Your task to perform on an android device: check android version Image 0: 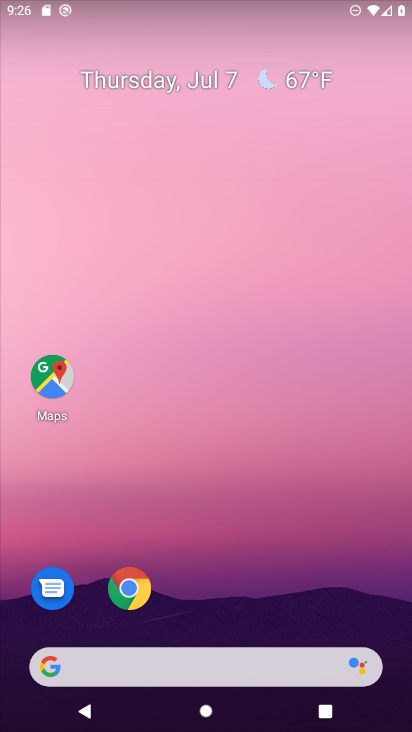
Step 0: drag from (224, 617) to (212, 87)
Your task to perform on an android device: check android version Image 1: 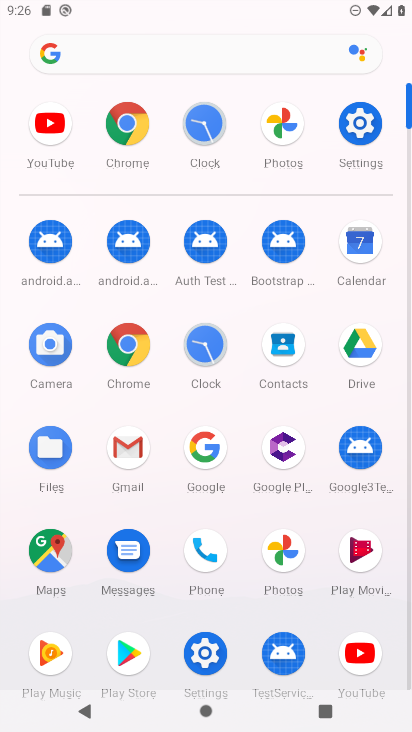
Step 1: click (360, 124)
Your task to perform on an android device: check android version Image 2: 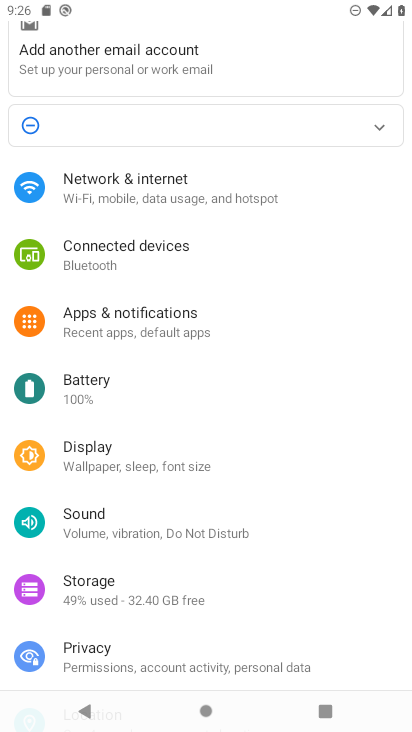
Step 2: drag from (146, 395) to (170, 308)
Your task to perform on an android device: check android version Image 3: 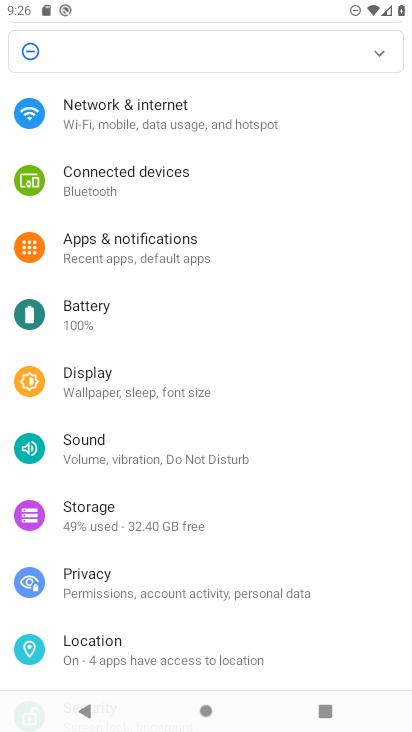
Step 3: drag from (133, 411) to (154, 310)
Your task to perform on an android device: check android version Image 4: 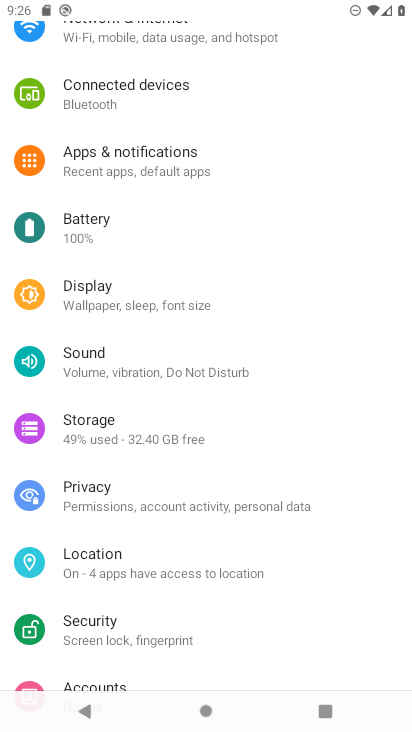
Step 4: drag from (129, 385) to (151, 310)
Your task to perform on an android device: check android version Image 5: 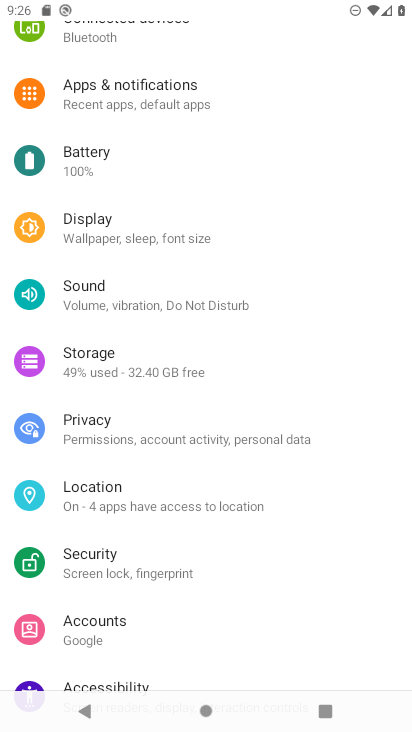
Step 5: drag from (127, 402) to (141, 325)
Your task to perform on an android device: check android version Image 6: 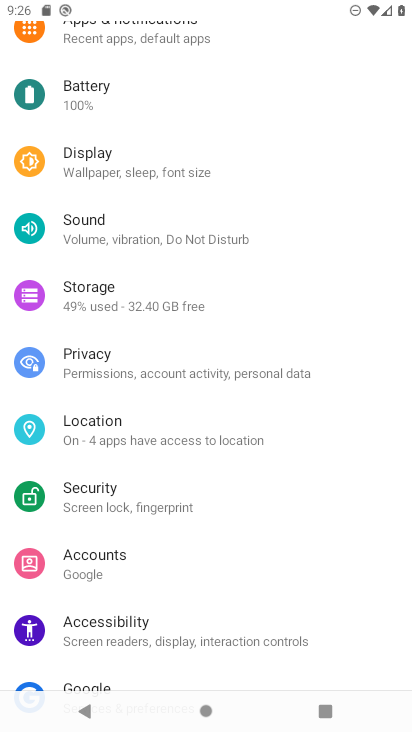
Step 6: drag from (118, 395) to (143, 328)
Your task to perform on an android device: check android version Image 7: 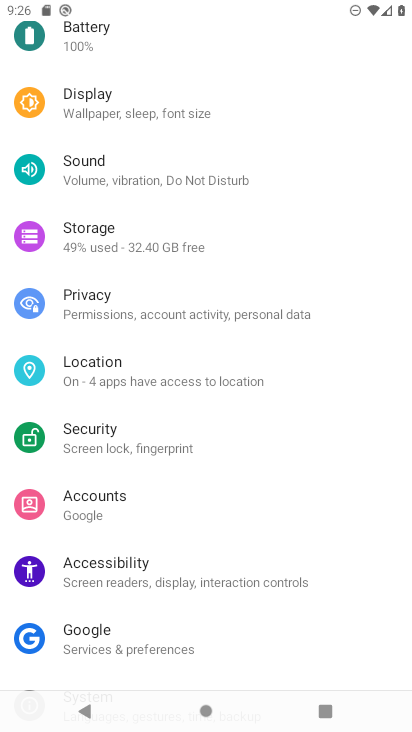
Step 7: drag from (98, 397) to (165, 313)
Your task to perform on an android device: check android version Image 8: 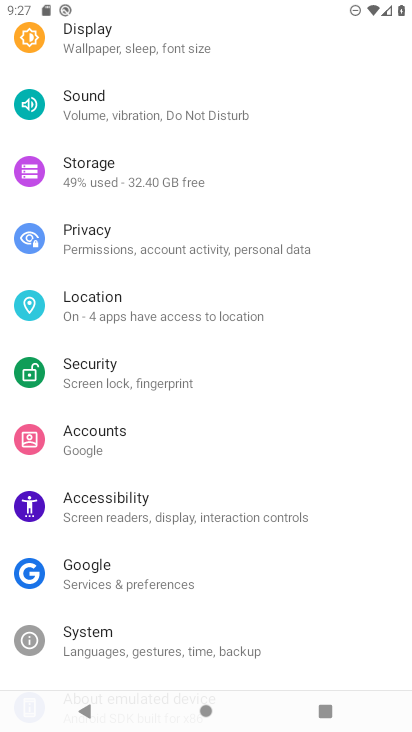
Step 8: drag from (134, 535) to (181, 456)
Your task to perform on an android device: check android version Image 9: 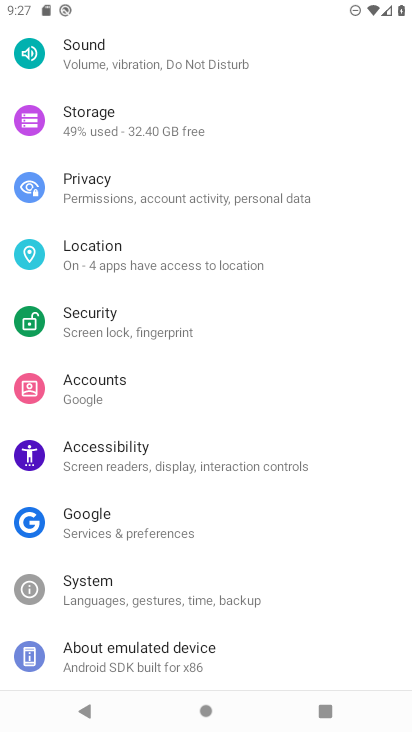
Step 9: drag from (147, 562) to (202, 487)
Your task to perform on an android device: check android version Image 10: 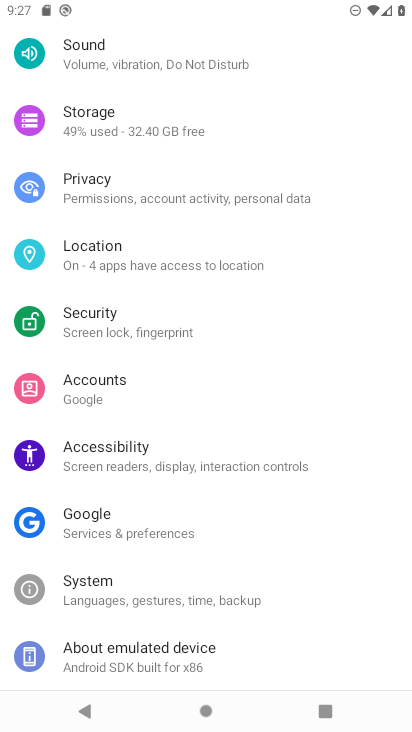
Step 10: click (133, 645)
Your task to perform on an android device: check android version Image 11: 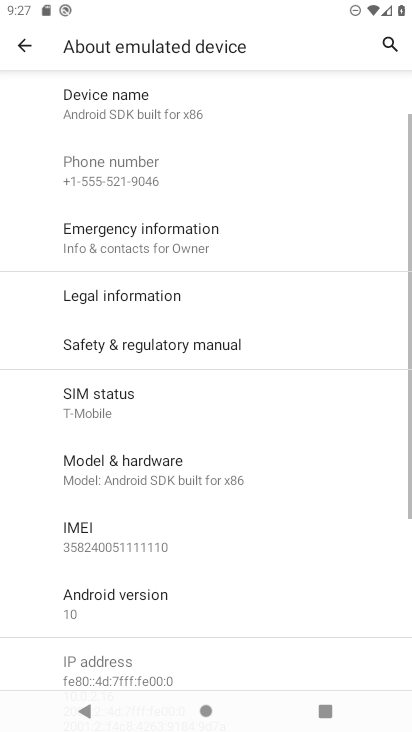
Step 11: drag from (135, 500) to (203, 399)
Your task to perform on an android device: check android version Image 12: 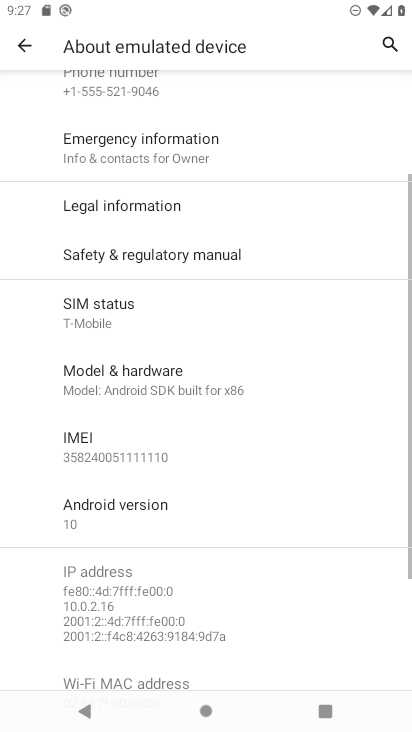
Step 12: click (143, 497)
Your task to perform on an android device: check android version Image 13: 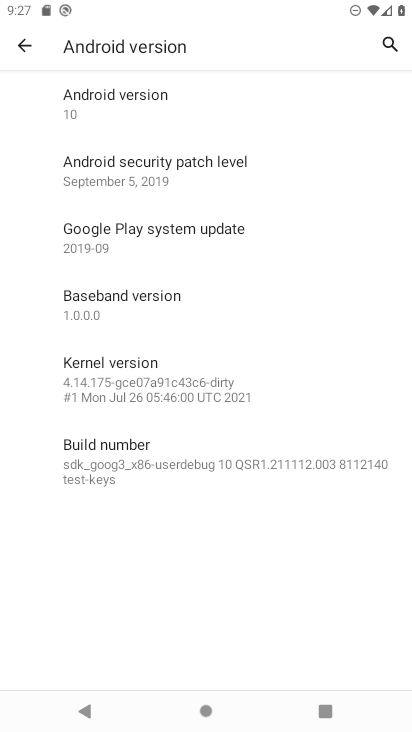
Step 13: task complete